Your task to perform on an android device: check google app version Image 0: 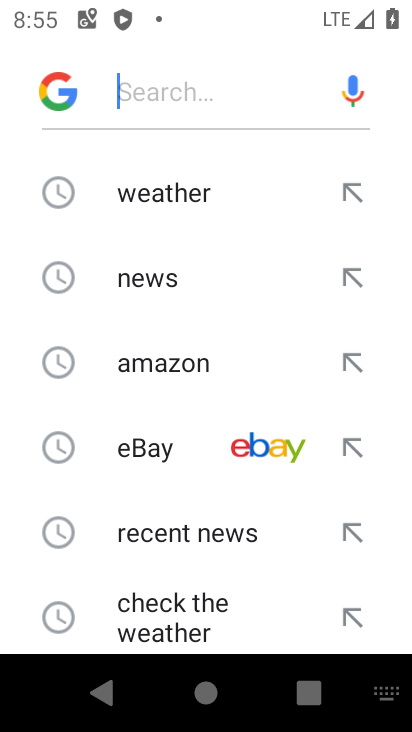
Step 0: press home button
Your task to perform on an android device: check google app version Image 1: 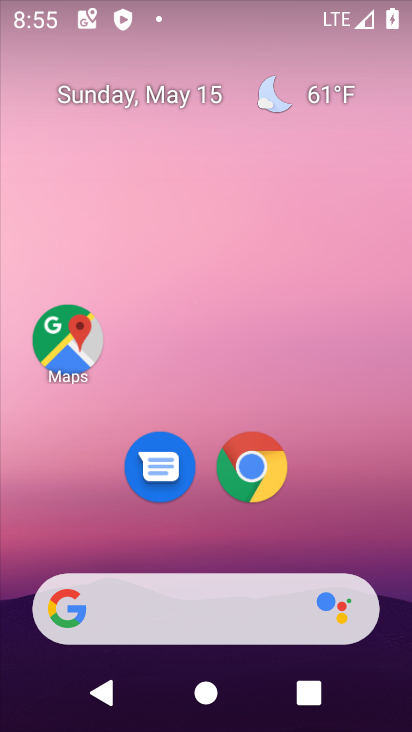
Step 1: click (49, 607)
Your task to perform on an android device: check google app version Image 2: 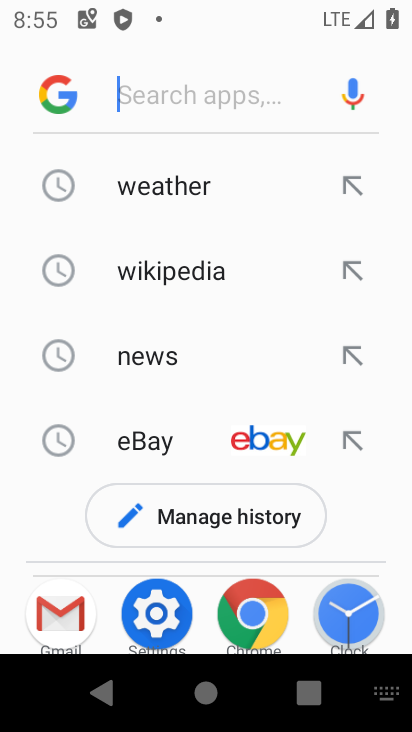
Step 2: click (62, 98)
Your task to perform on an android device: check google app version Image 3: 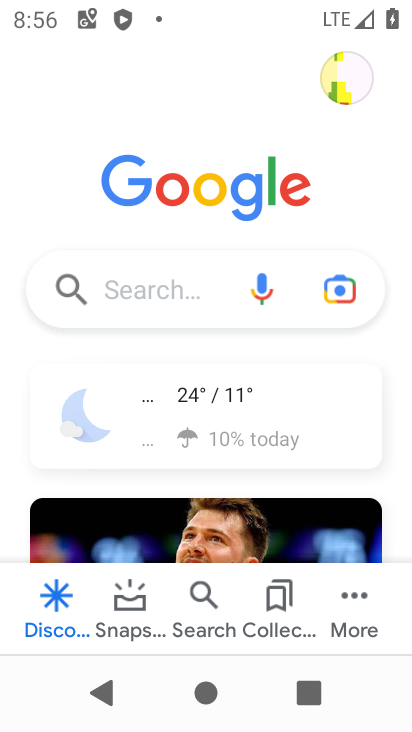
Step 3: click (346, 600)
Your task to perform on an android device: check google app version Image 4: 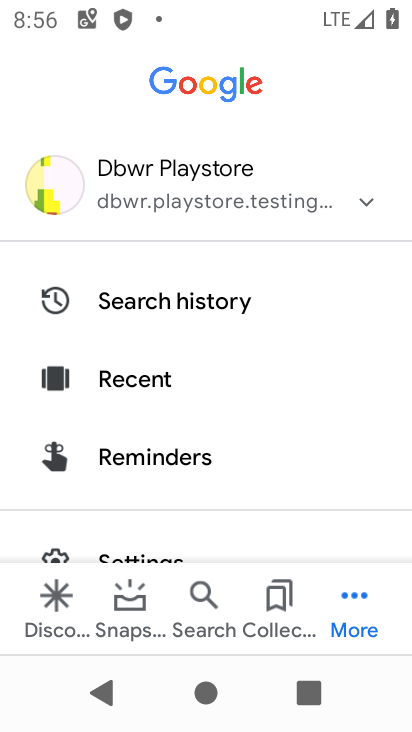
Step 4: drag from (233, 527) to (273, 61)
Your task to perform on an android device: check google app version Image 5: 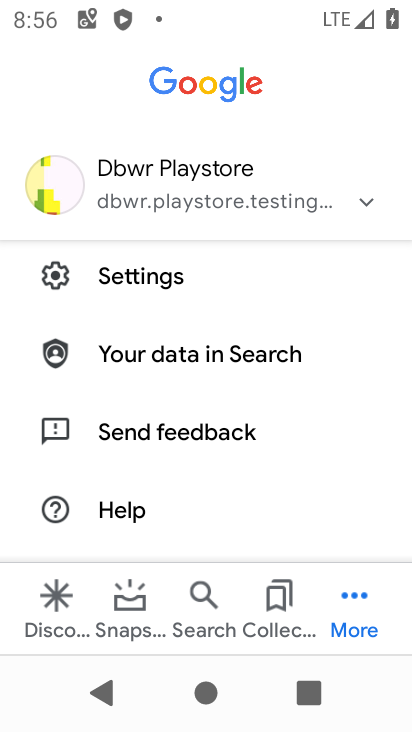
Step 5: click (151, 298)
Your task to perform on an android device: check google app version Image 6: 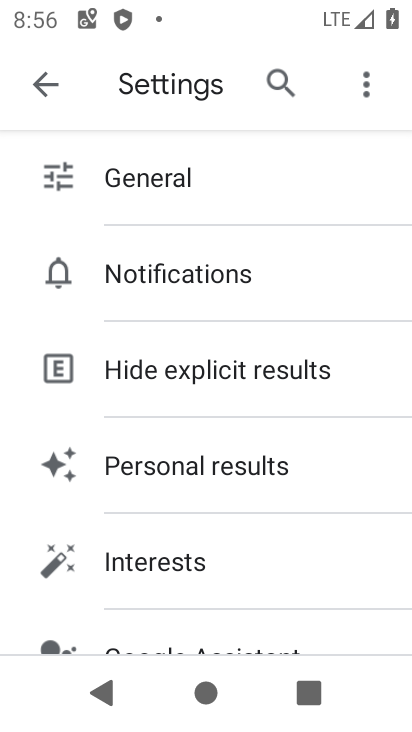
Step 6: click (56, 72)
Your task to perform on an android device: check google app version Image 7: 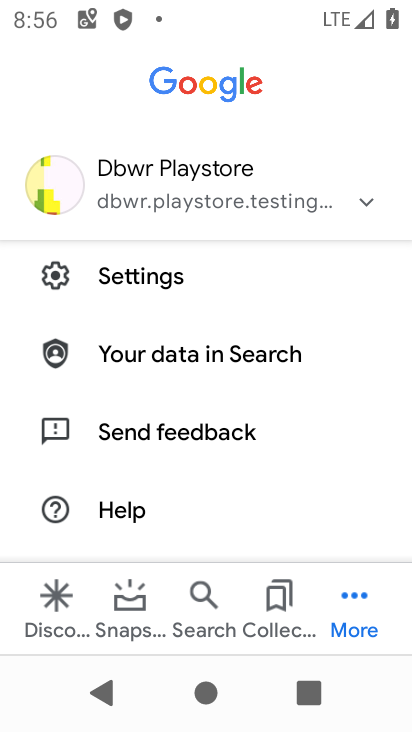
Step 7: drag from (129, 491) to (274, 122)
Your task to perform on an android device: check google app version Image 8: 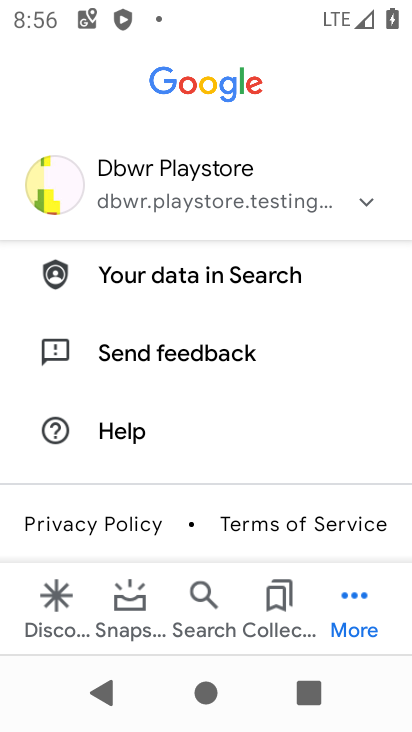
Step 8: drag from (212, 525) to (191, 130)
Your task to perform on an android device: check google app version Image 9: 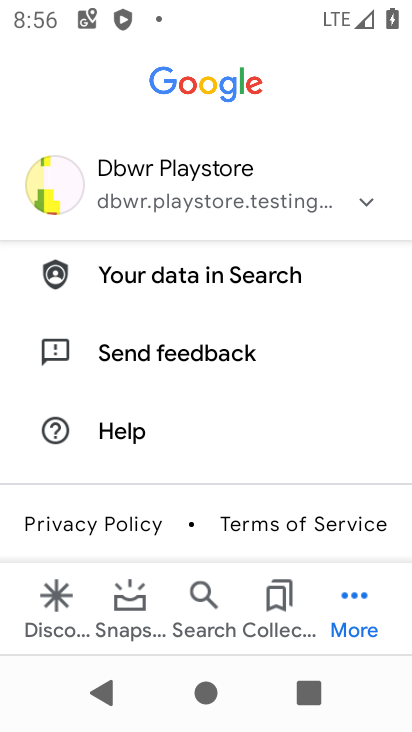
Step 9: drag from (219, 302) to (251, 528)
Your task to perform on an android device: check google app version Image 10: 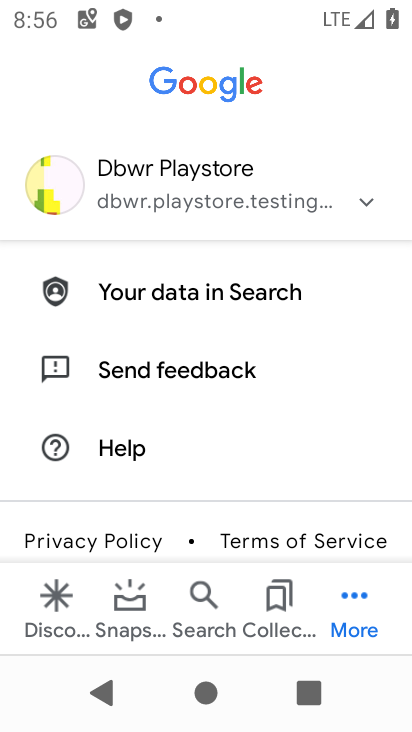
Step 10: drag from (210, 306) to (202, 579)
Your task to perform on an android device: check google app version Image 11: 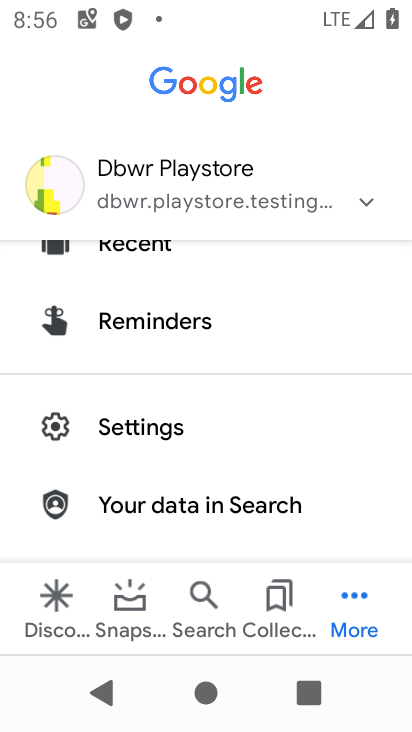
Step 11: click (142, 427)
Your task to perform on an android device: check google app version Image 12: 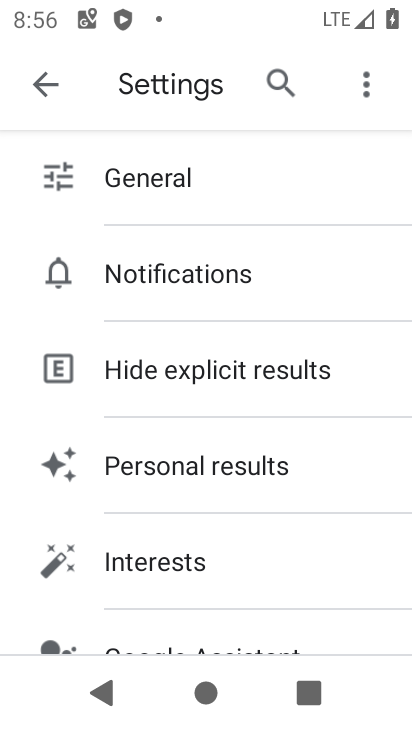
Step 12: click (60, 97)
Your task to perform on an android device: check google app version Image 13: 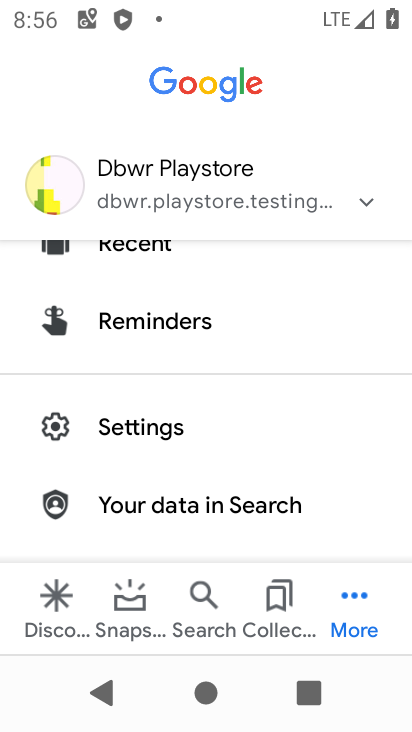
Step 13: drag from (219, 254) to (257, 619)
Your task to perform on an android device: check google app version Image 14: 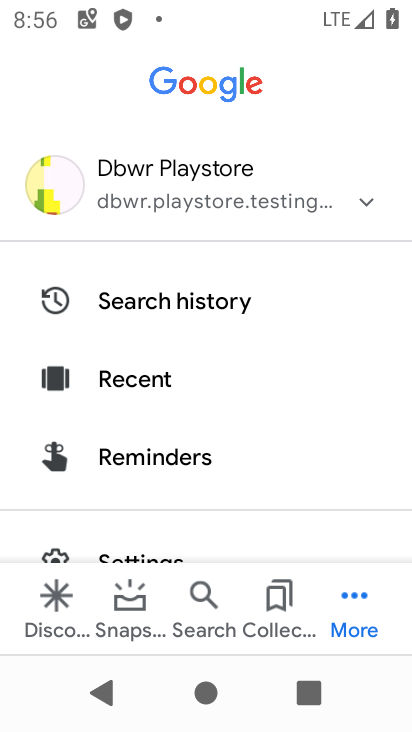
Step 14: drag from (193, 322) to (171, 632)
Your task to perform on an android device: check google app version Image 15: 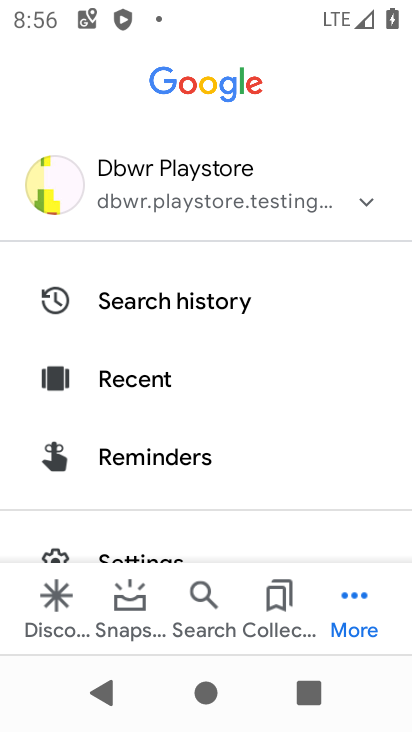
Step 15: drag from (165, 477) to (204, 255)
Your task to perform on an android device: check google app version Image 16: 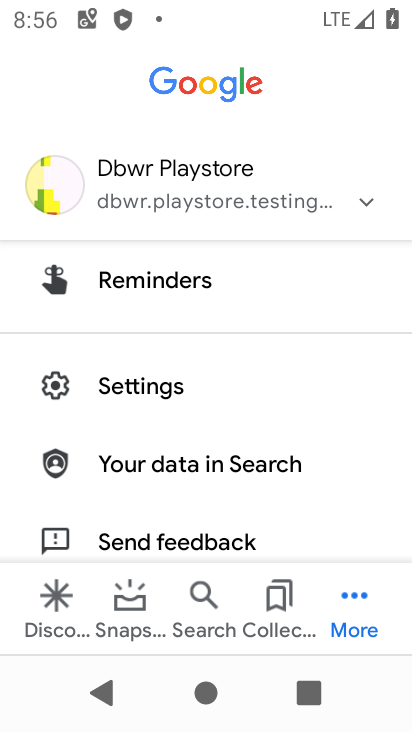
Step 16: click (175, 394)
Your task to perform on an android device: check google app version Image 17: 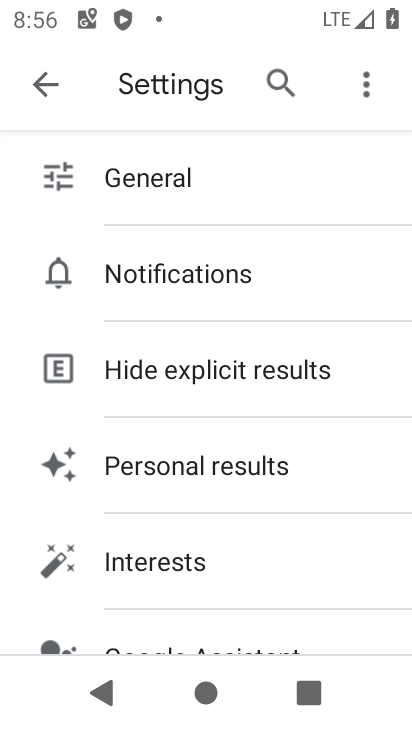
Step 17: click (150, 169)
Your task to perform on an android device: check google app version Image 18: 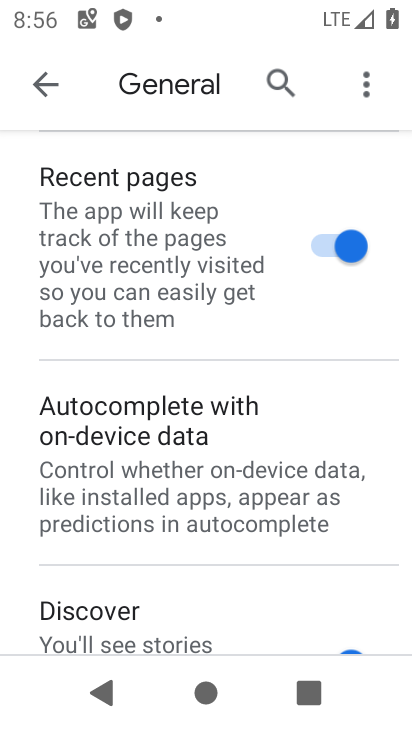
Step 18: click (49, 83)
Your task to perform on an android device: check google app version Image 19: 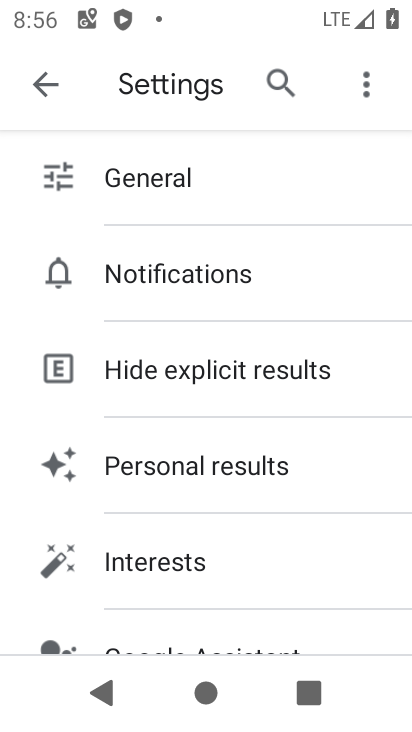
Step 19: drag from (132, 642) to (200, 93)
Your task to perform on an android device: check google app version Image 20: 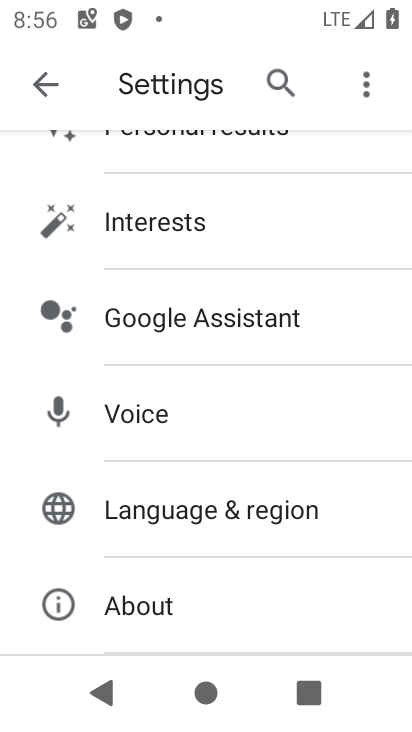
Step 20: drag from (196, 548) to (223, 236)
Your task to perform on an android device: check google app version Image 21: 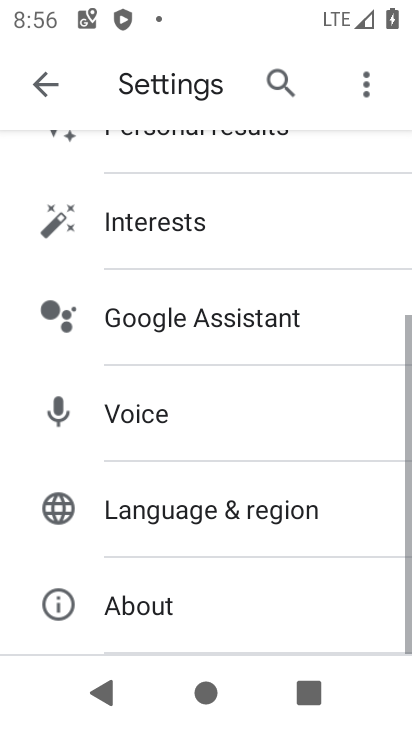
Step 21: click (164, 585)
Your task to perform on an android device: check google app version Image 22: 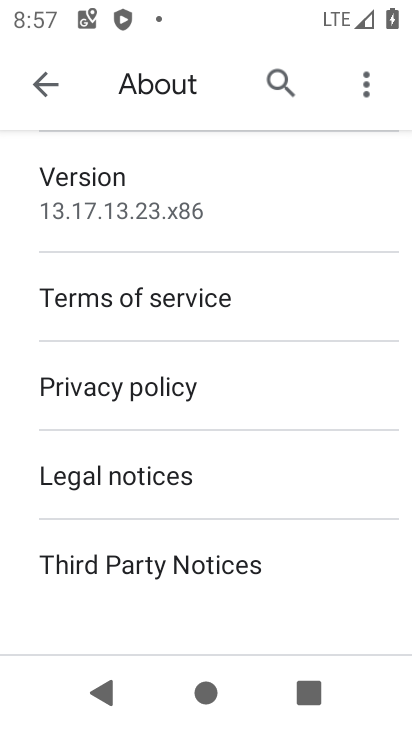
Step 22: task complete